Your task to perform on an android device: Show the shopping cart on amazon.com. Search for "razer blade" on amazon.com, select the first entry, and add it to the cart. Image 0: 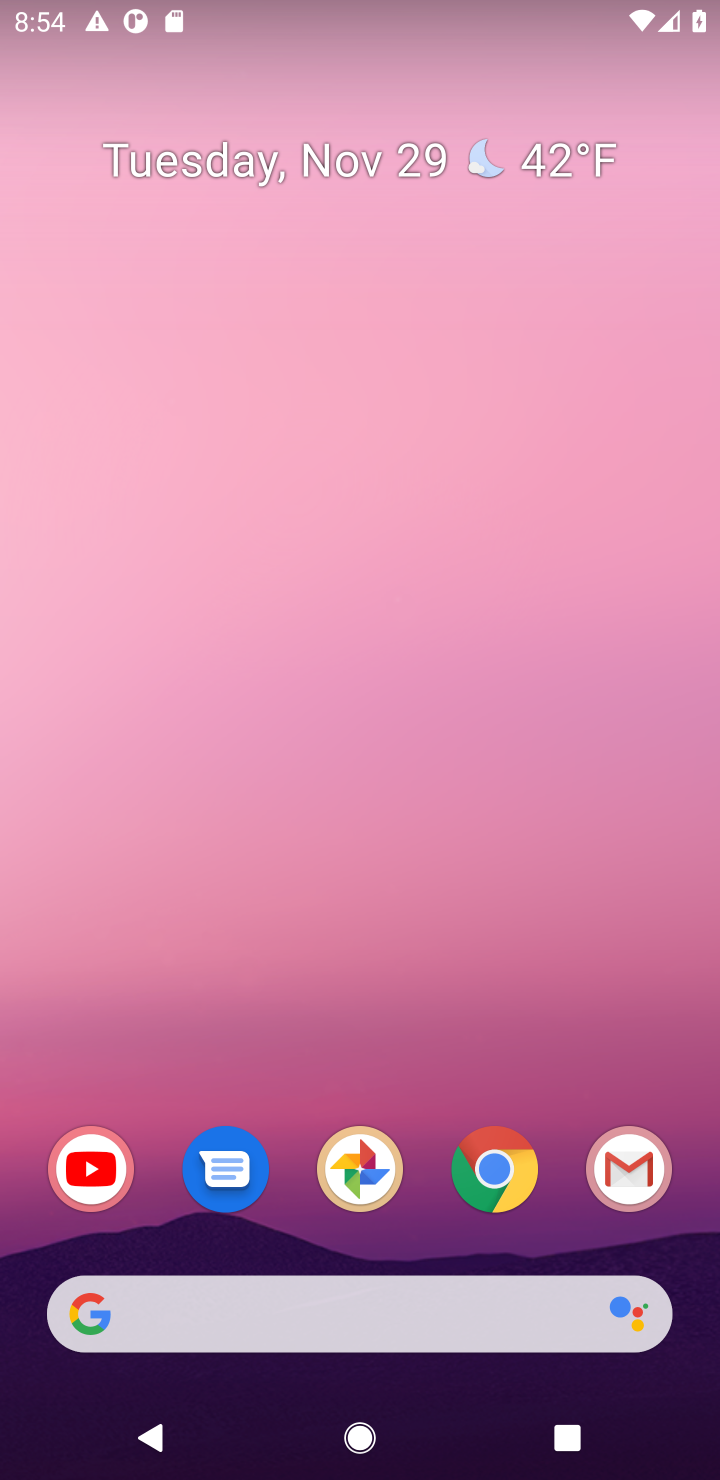
Step 0: click (349, 1315)
Your task to perform on an android device: Show the shopping cart on amazon.com. Search for "razer blade" on amazon.com, select the first entry, and add it to the cart. Image 1: 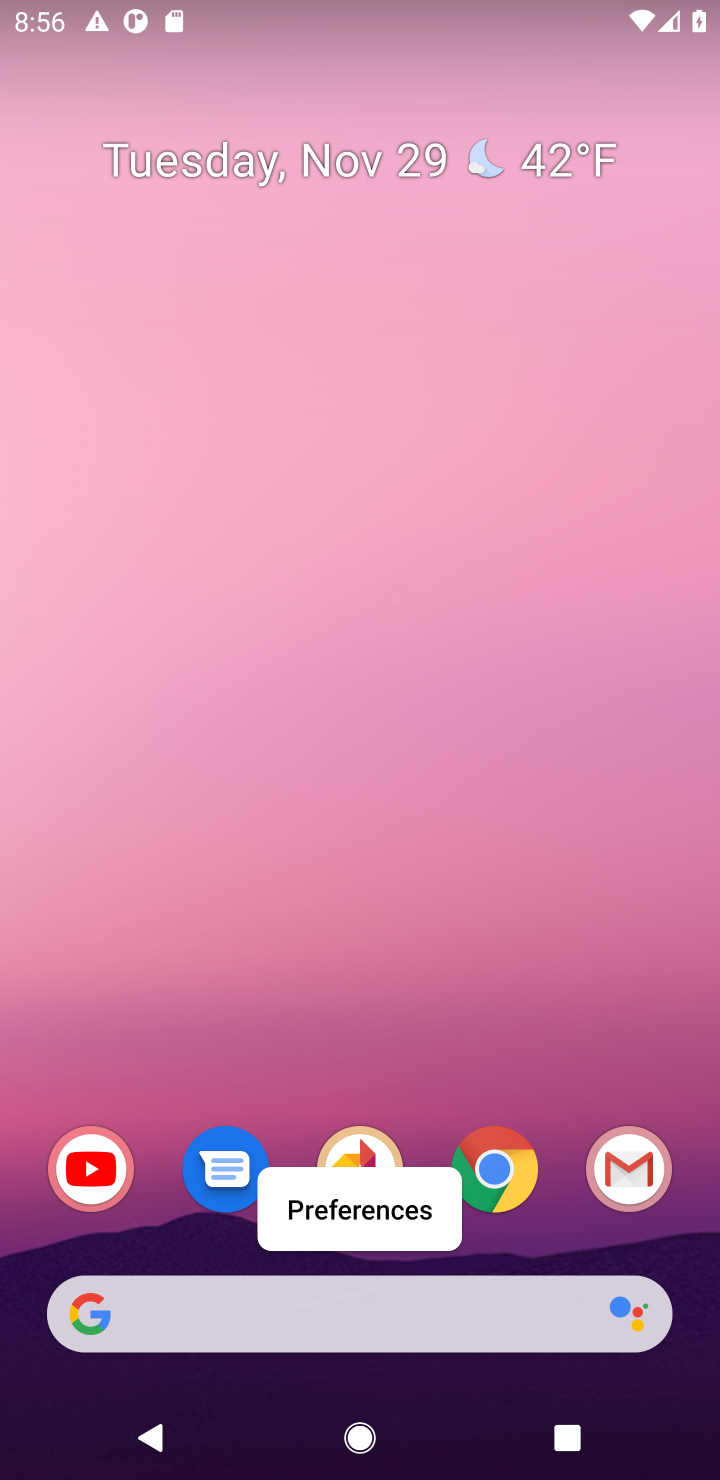
Step 1: click (509, 1213)
Your task to perform on an android device: Show the shopping cart on amazon.com. Search for "razer blade" on amazon.com, select the first entry, and add it to the cart. Image 2: 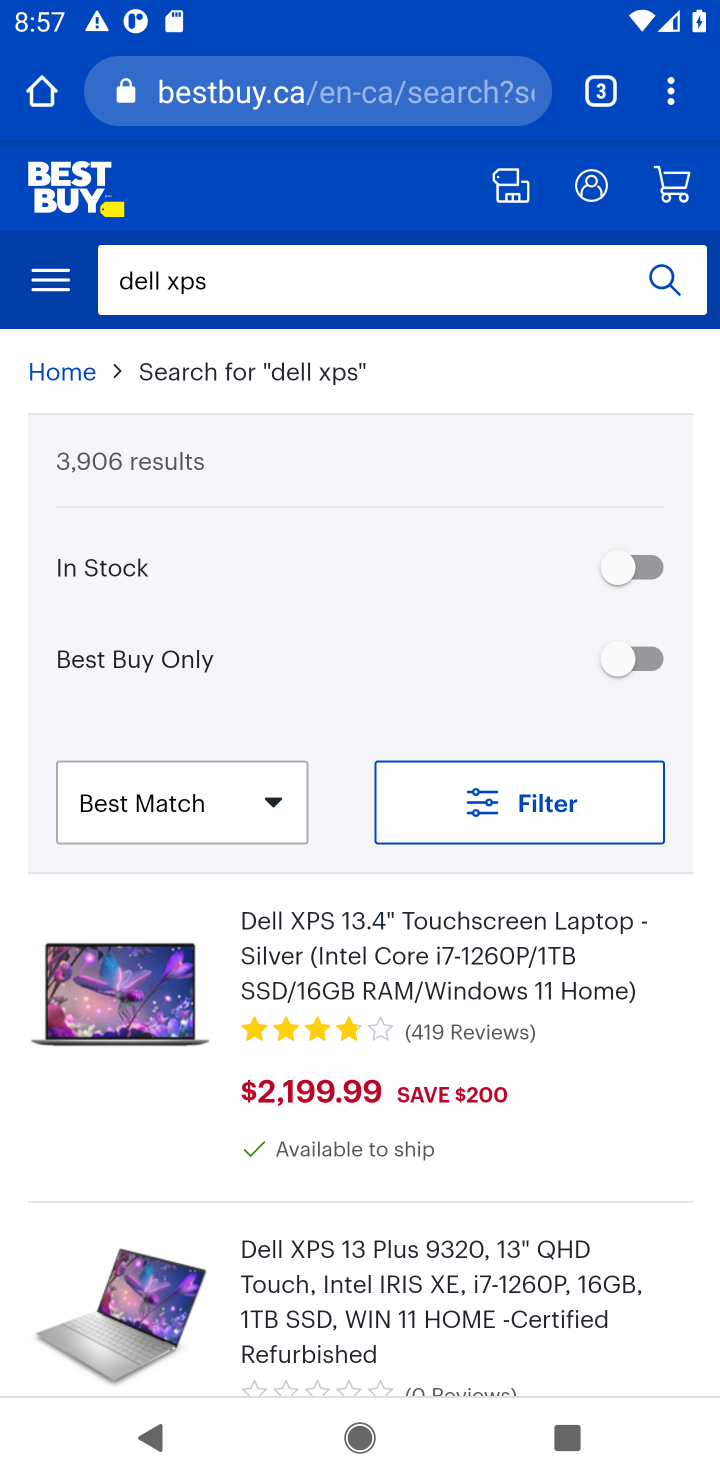
Step 2: task complete